Your task to perform on an android device: When is my next appointment? Image 0: 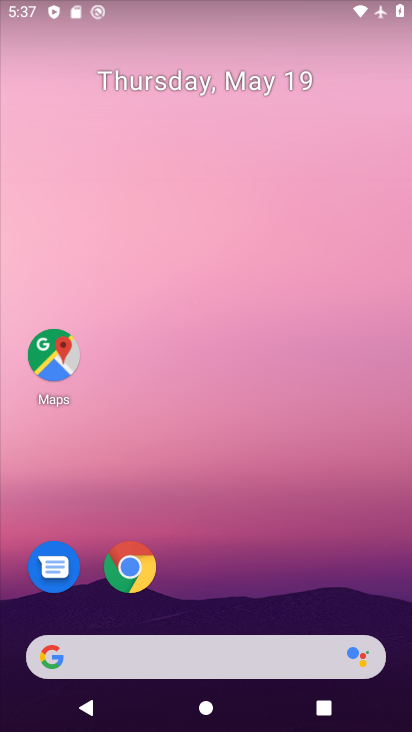
Step 0: click (334, 118)
Your task to perform on an android device: When is my next appointment? Image 1: 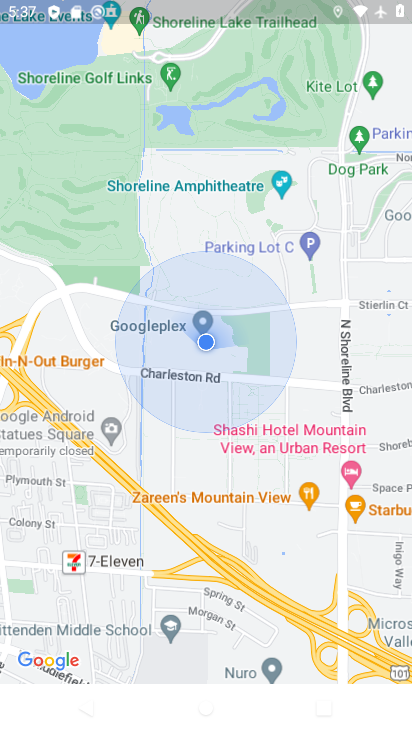
Step 1: press back button
Your task to perform on an android device: When is my next appointment? Image 2: 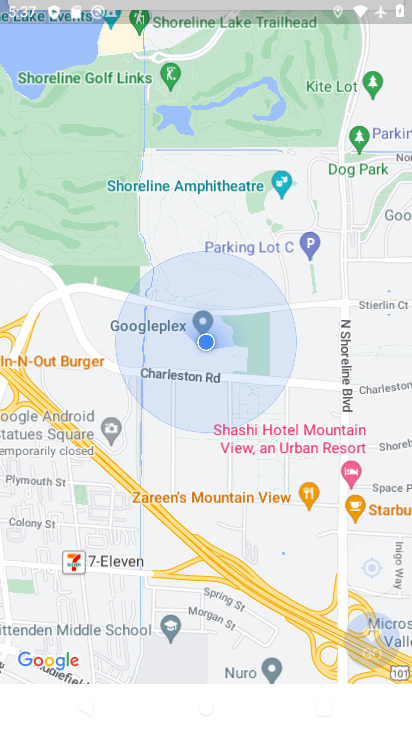
Step 2: press back button
Your task to perform on an android device: When is my next appointment? Image 3: 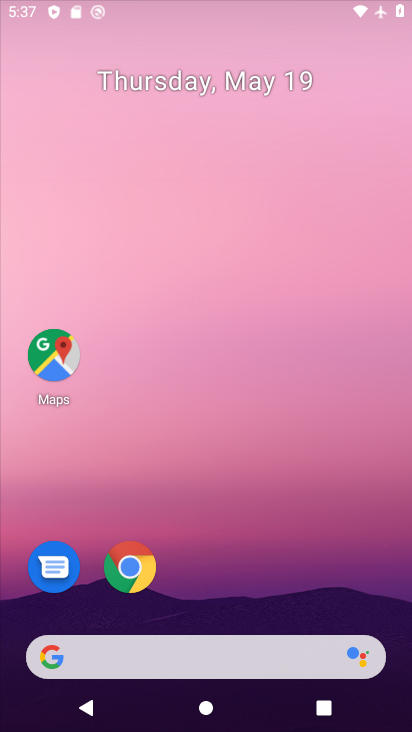
Step 3: drag from (238, 590) to (174, 118)
Your task to perform on an android device: When is my next appointment? Image 4: 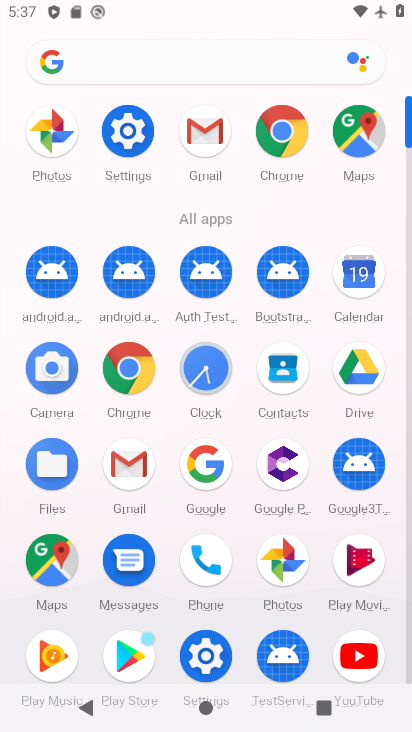
Step 4: click (342, 273)
Your task to perform on an android device: When is my next appointment? Image 5: 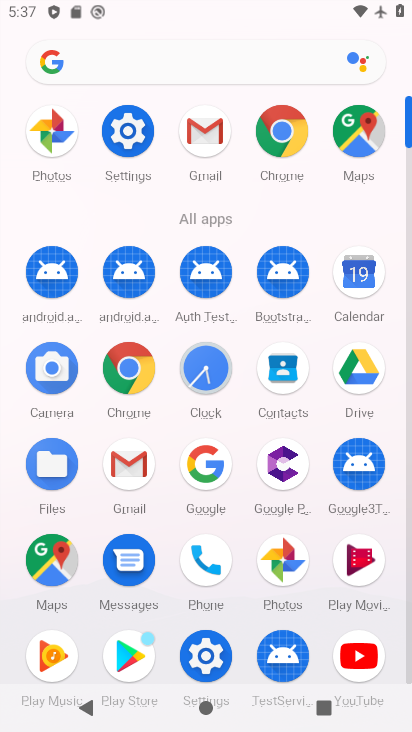
Step 5: click (344, 273)
Your task to perform on an android device: When is my next appointment? Image 6: 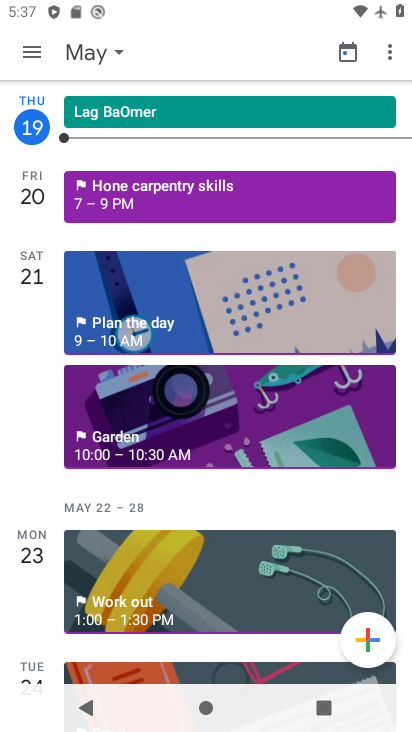
Step 6: click (345, 273)
Your task to perform on an android device: When is my next appointment? Image 7: 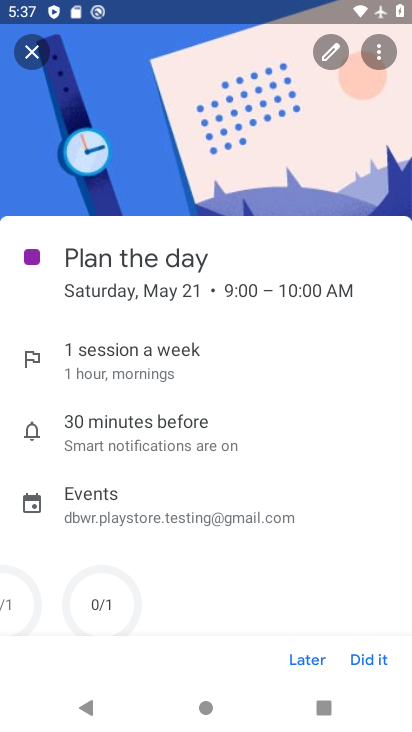
Step 7: click (310, 655)
Your task to perform on an android device: When is my next appointment? Image 8: 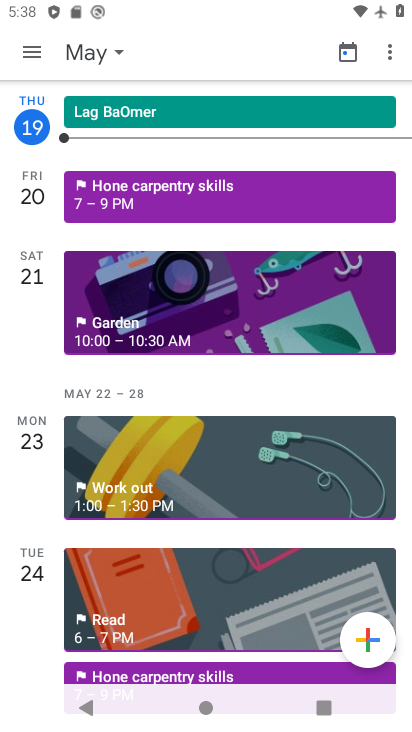
Step 8: click (102, 216)
Your task to perform on an android device: When is my next appointment? Image 9: 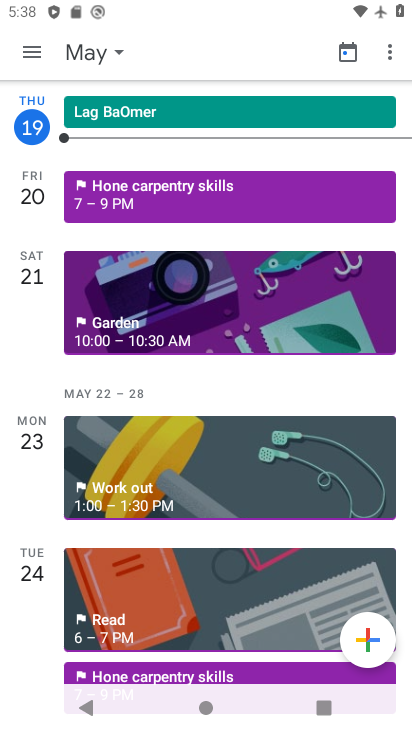
Step 9: click (117, 195)
Your task to perform on an android device: When is my next appointment? Image 10: 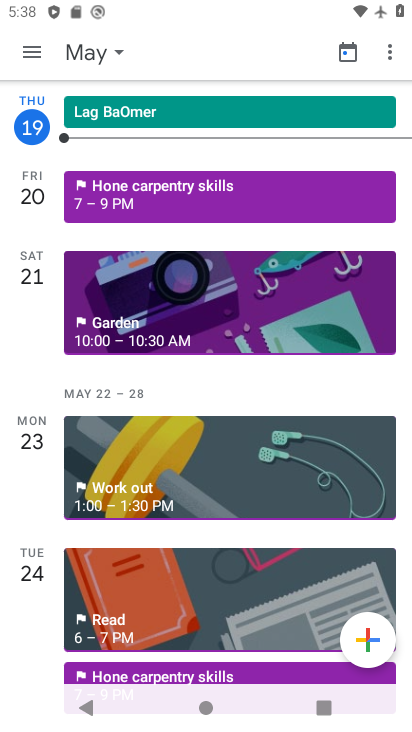
Step 10: press home button
Your task to perform on an android device: When is my next appointment? Image 11: 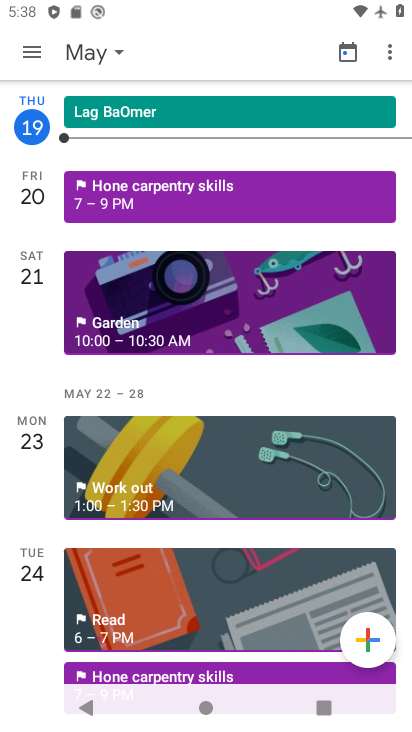
Step 11: press home button
Your task to perform on an android device: When is my next appointment? Image 12: 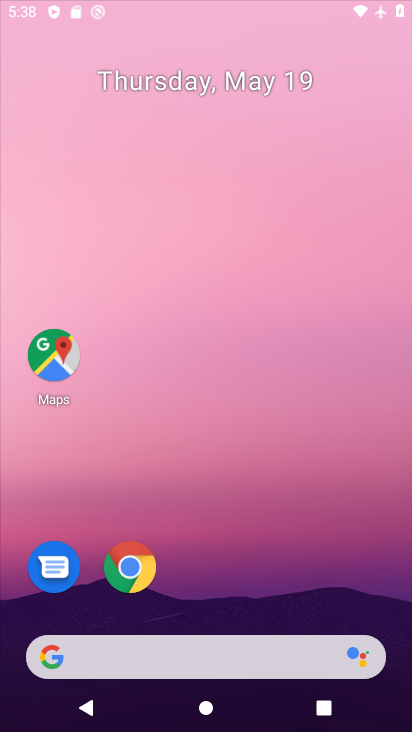
Step 12: press home button
Your task to perform on an android device: When is my next appointment? Image 13: 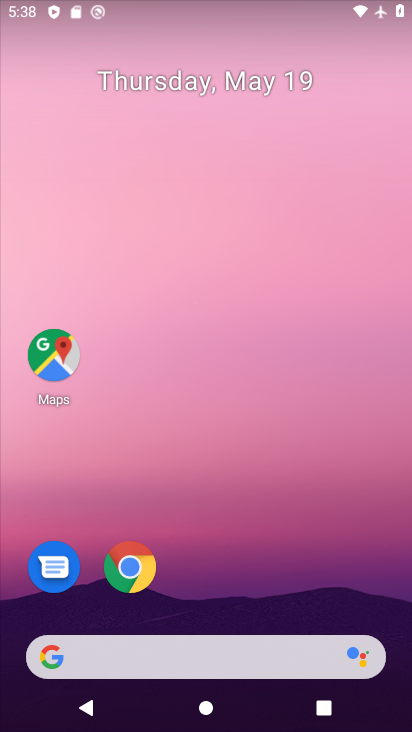
Step 13: drag from (287, 640) to (168, 189)
Your task to perform on an android device: When is my next appointment? Image 14: 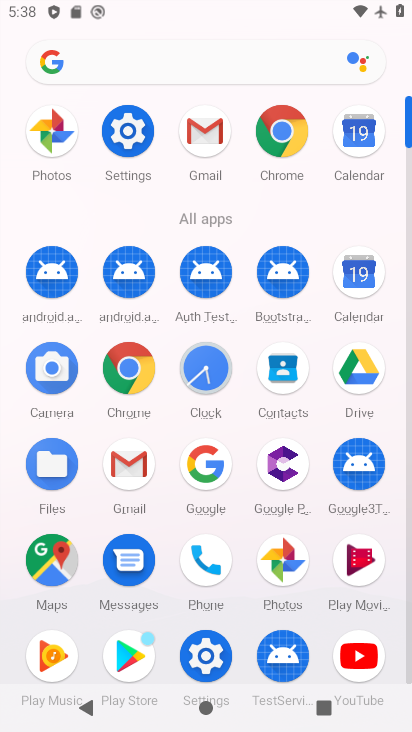
Step 14: click (368, 279)
Your task to perform on an android device: When is my next appointment? Image 15: 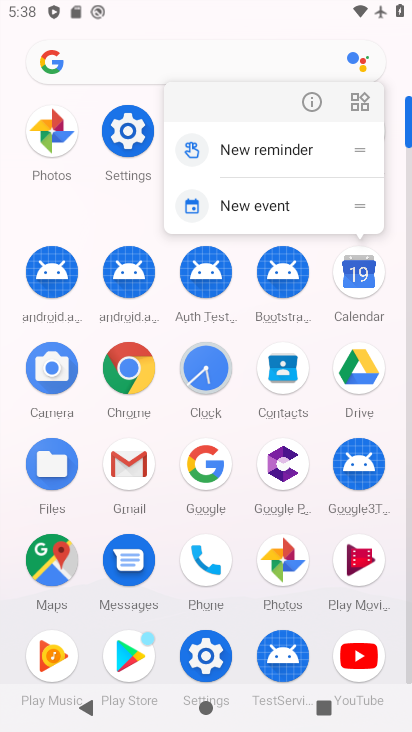
Step 15: click (362, 271)
Your task to perform on an android device: When is my next appointment? Image 16: 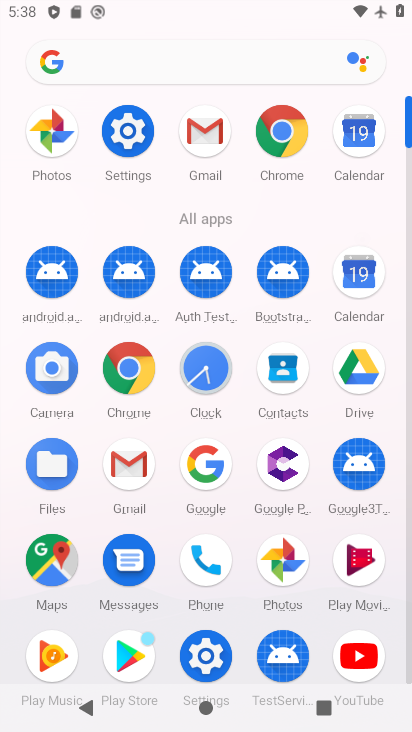
Step 16: click (362, 271)
Your task to perform on an android device: When is my next appointment? Image 17: 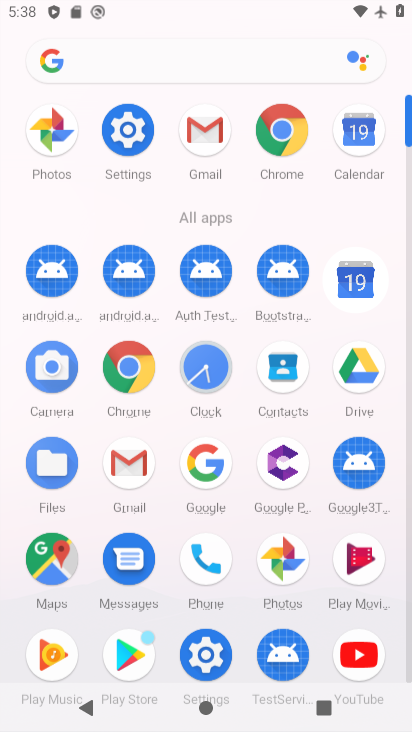
Step 17: click (362, 271)
Your task to perform on an android device: When is my next appointment? Image 18: 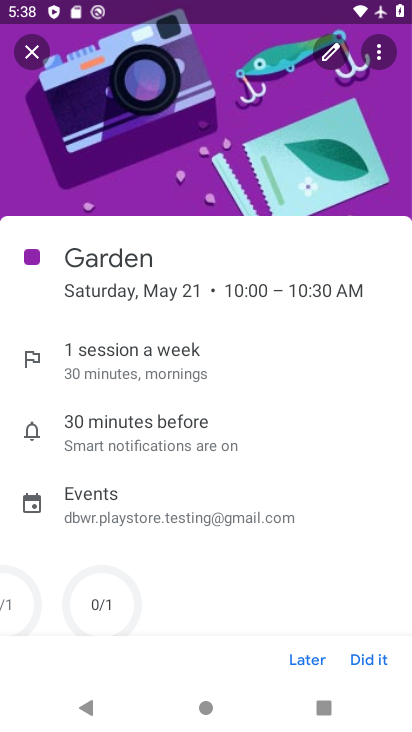
Step 18: click (289, 655)
Your task to perform on an android device: When is my next appointment? Image 19: 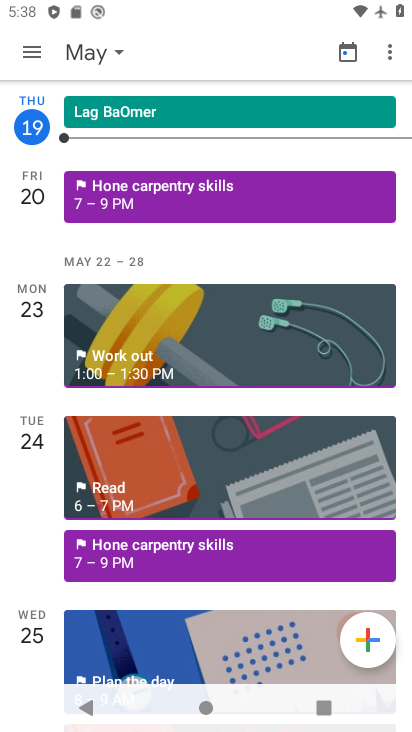
Step 19: click (125, 200)
Your task to perform on an android device: When is my next appointment? Image 20: 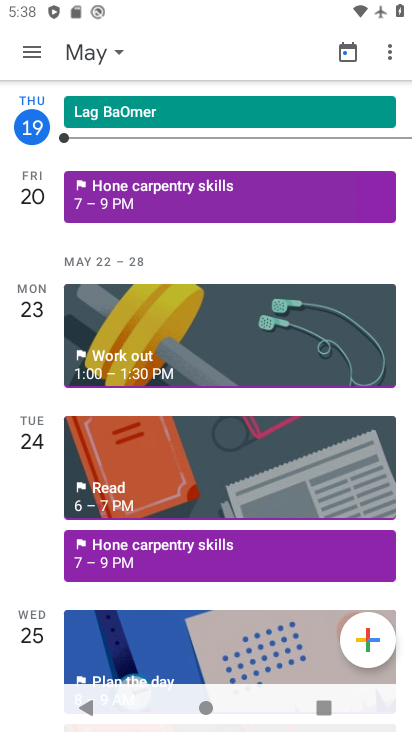
Step 20: click (125, 200)
Your task to perform on an android device: When is my next appointment? Image 21: 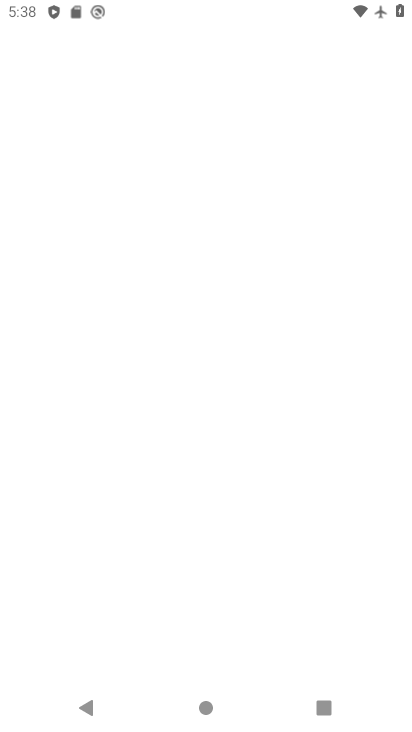
Step 21: click (124, 199)
Your task to perform on an android device: When is my next appointment? Image 22: 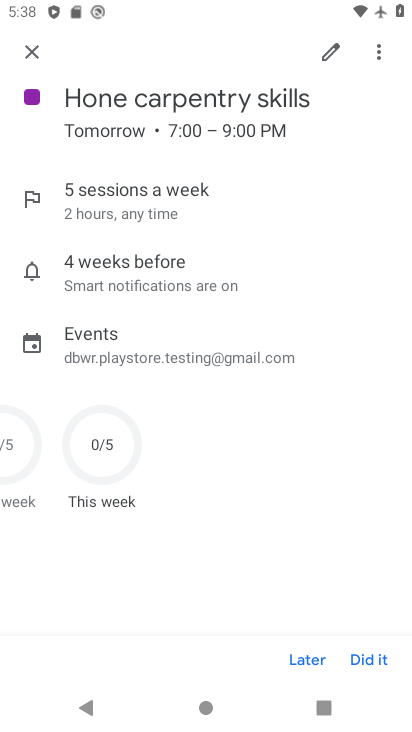
Step 22: task complete